Your task to perform on an android device: What is the recent news? Image 0: 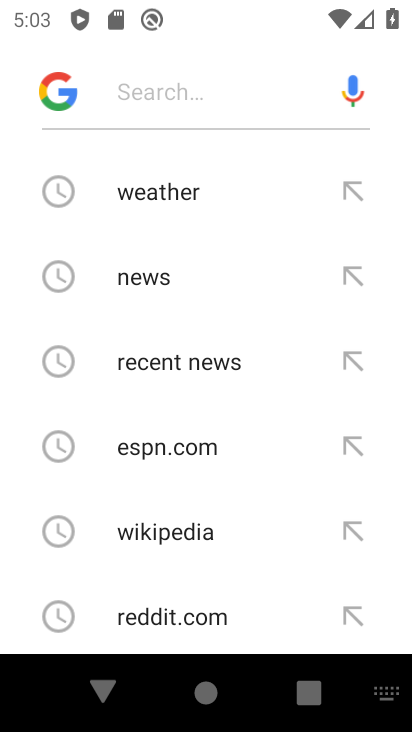
Step 0: press home button
Your task to perform on an android device: What is the recent news? Image 1: 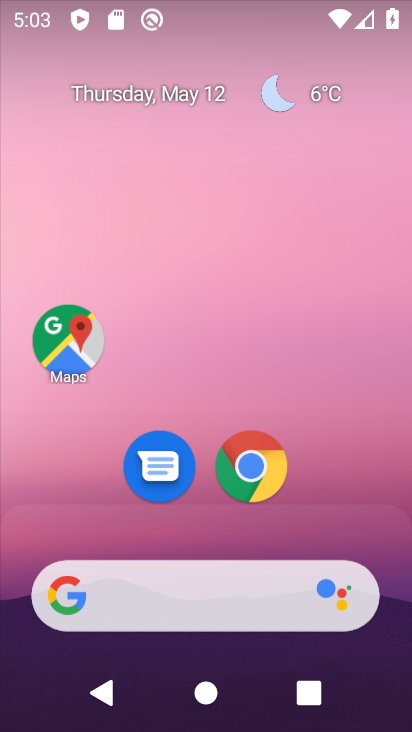
Step 1: click (148, 607)
Your task to perform on an android device: What is the recent news? Image 2: 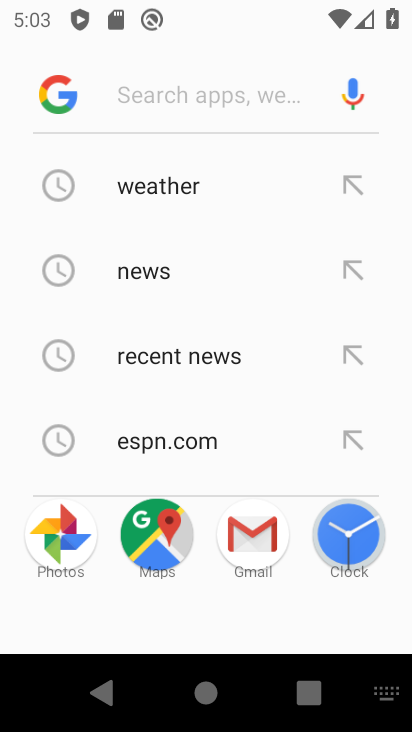
Step 2: type "recent news"
Your task to perform on an android device: What is the recent news? Image 3: 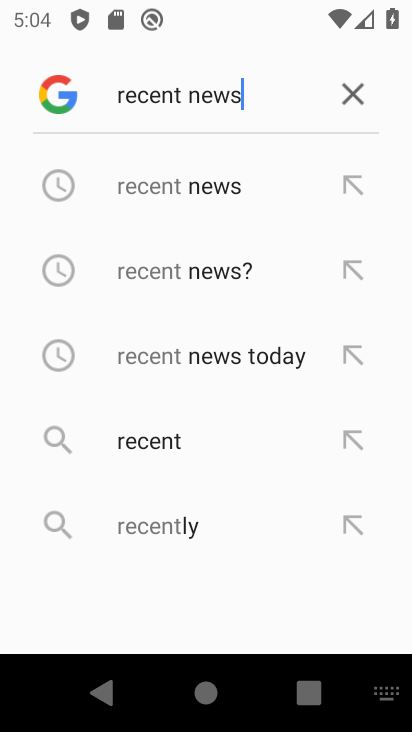
Step 3: type ""
Your task to perform on an android device: What is the recent news? Image 4: 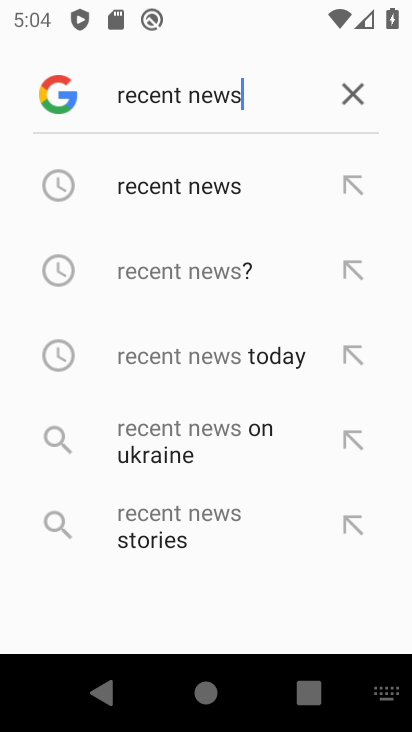
Step 4: click (180, 190)
Your task to perform on an android device: What is the recent news? Image 5: 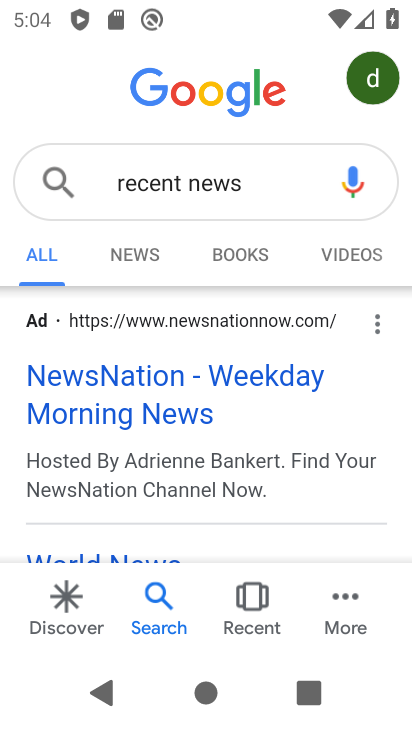
Step 5: task complete